Your task to perform on an android device: open app "WhatsApp Messenger" (install if not already installed) Image 0: 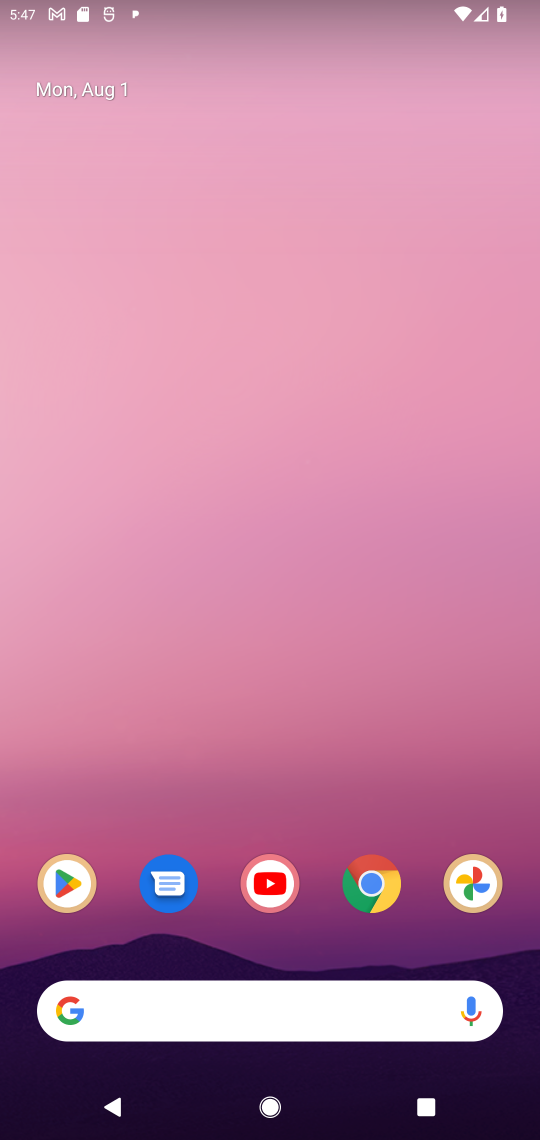
Step 0: click (18, 883)
Your task to perform on an android device: open app "WhatsApp Messenger" (install if not already installed) Image 1: 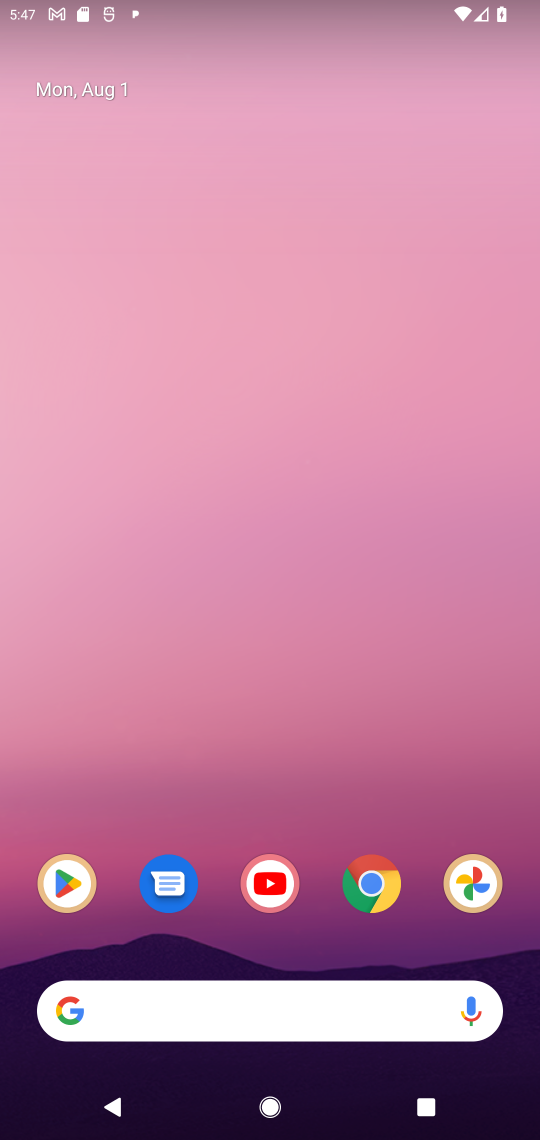
Step 1: click (53, 883)
Your task to perform on an android device: open app "WhatsApp Messenger" (install if not already installed) Image 2: 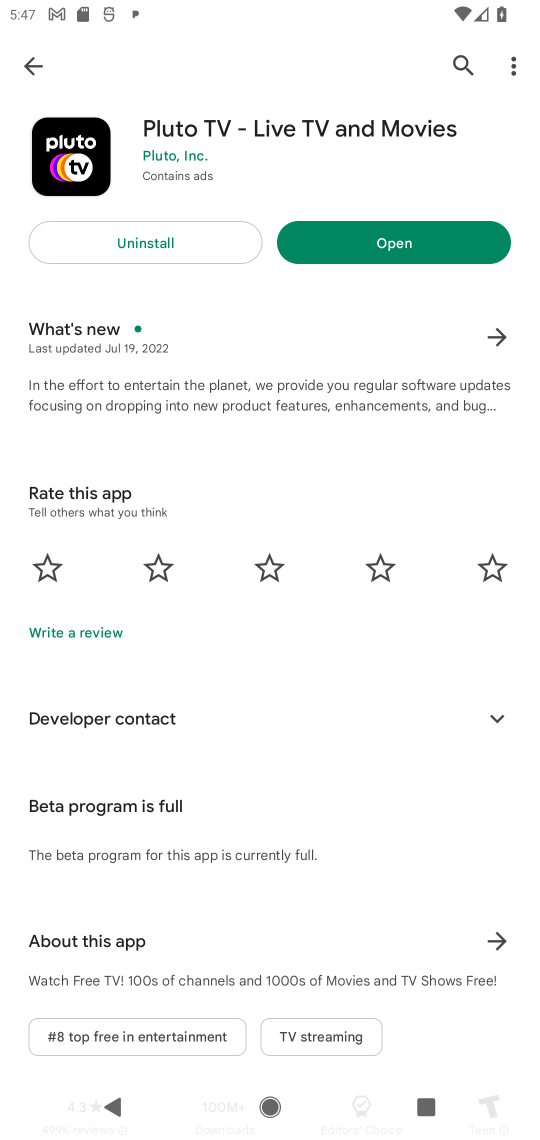
Step 2: click (62, 72)
Your task to perform on an android device: open app "WhatsApp Messenger" (install if not already installed) Image 3: 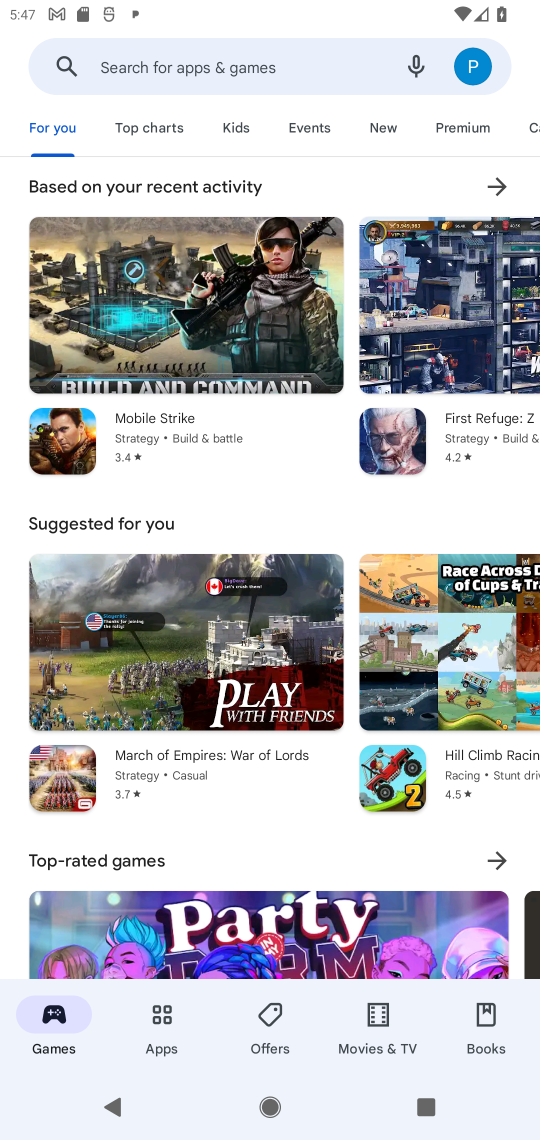
Step 3: click (155, 64)
Your task to perform on an android device: open app "WhatsApp Messenger" (install if not already installed) Image 4: 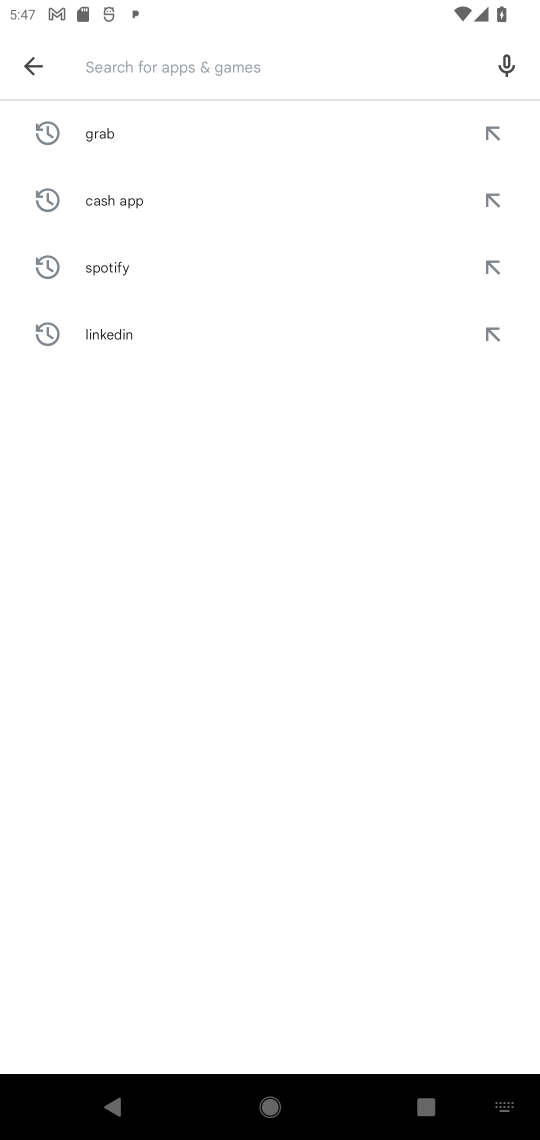
Step 4: type "WhatsApp Messenger"
Your task to perform on an android device: open app "WhatsApp Messenger" (install if not already installed) Image 5: 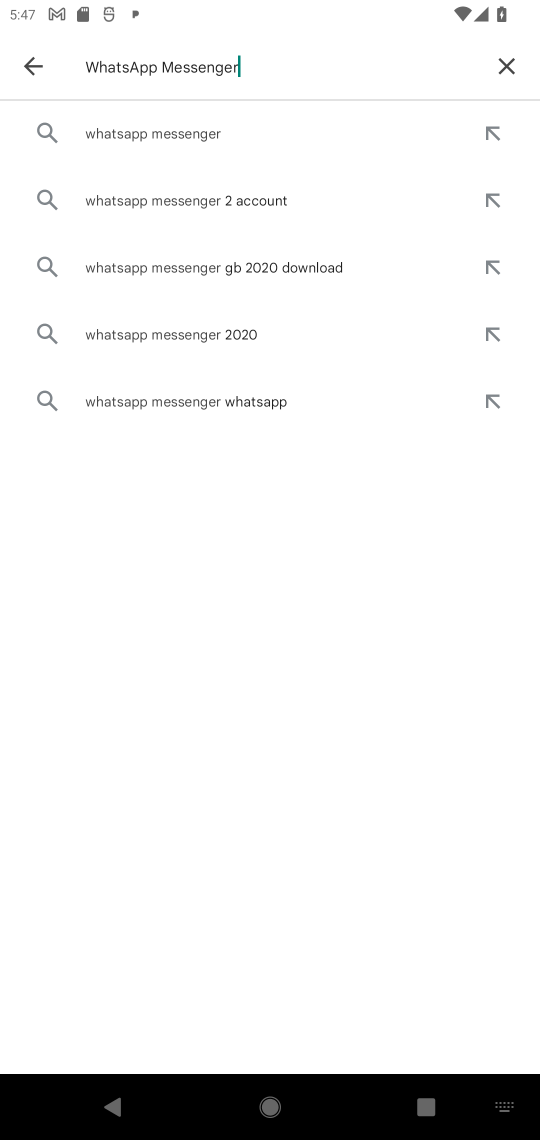
Step 5: click (140, 135)
Your task to perform on an android device: open app "WhatsApp Messenger" (install if not already installed) Image 6: 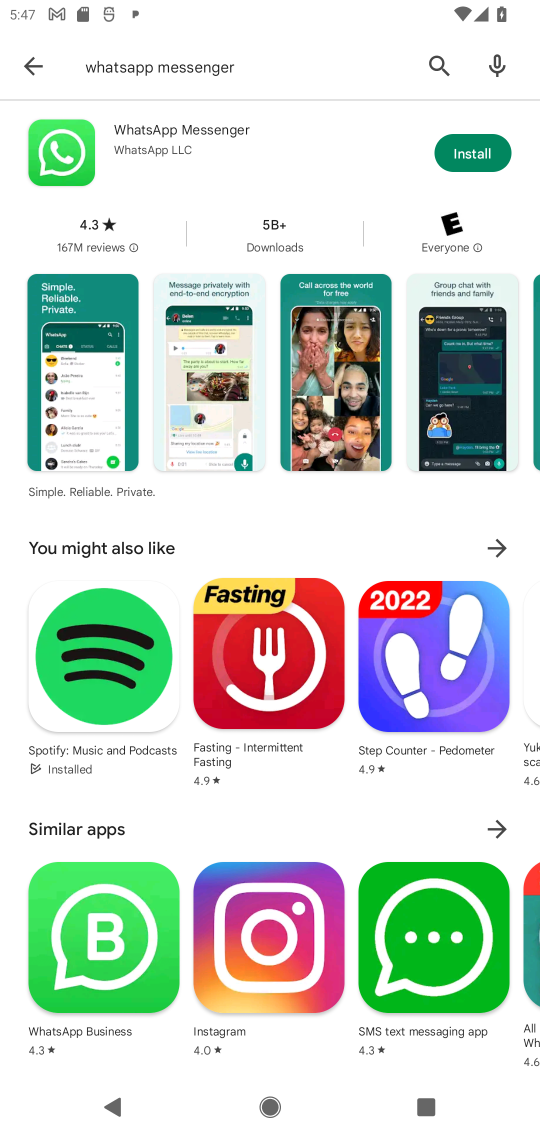
Step 6: click (463, 147)
Your task to perform on an android device: open app "WhatsApp Messenger" (install if not already installed) Image 7: 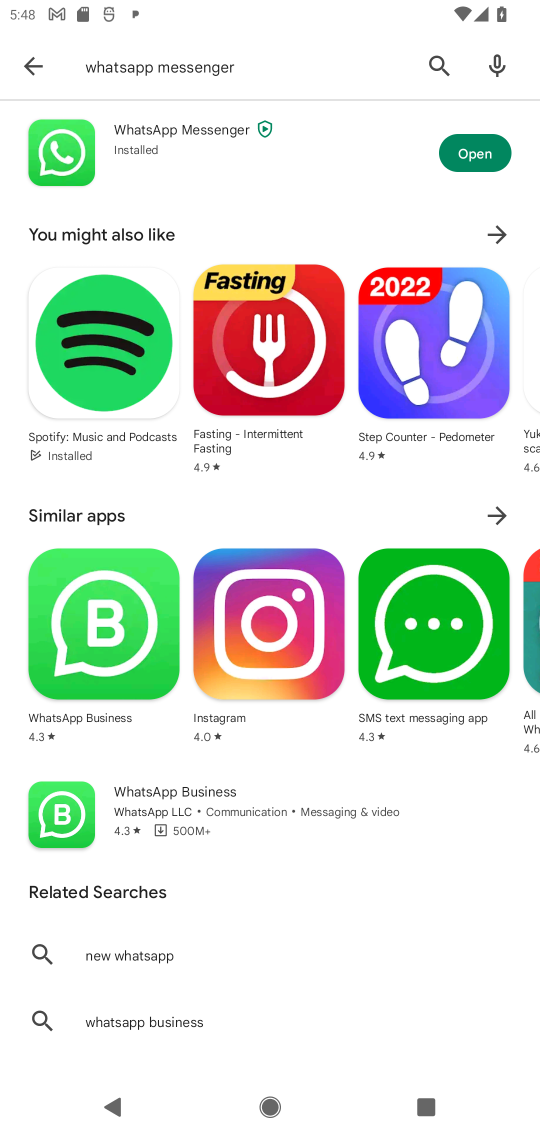
Step 7: click (481, 157)
Your task to perform on an android device: open app "WhatsApp Messenger" (install if not already installed) Image 8: 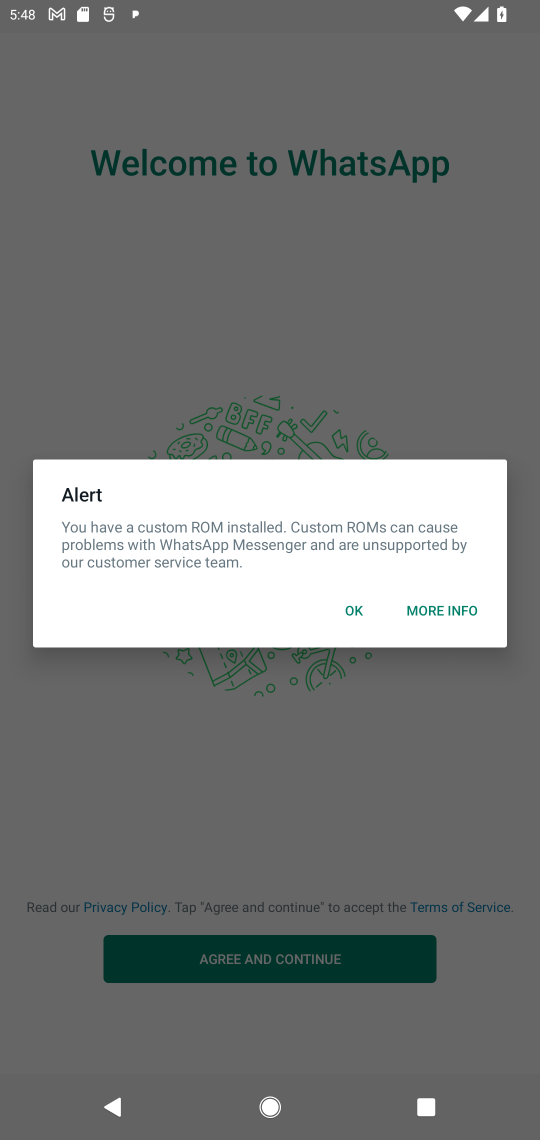
Step 8: task complete